Your task to perform on an android device: open app "Roku - Official Remote Control" (install if not already installed) Image 0: 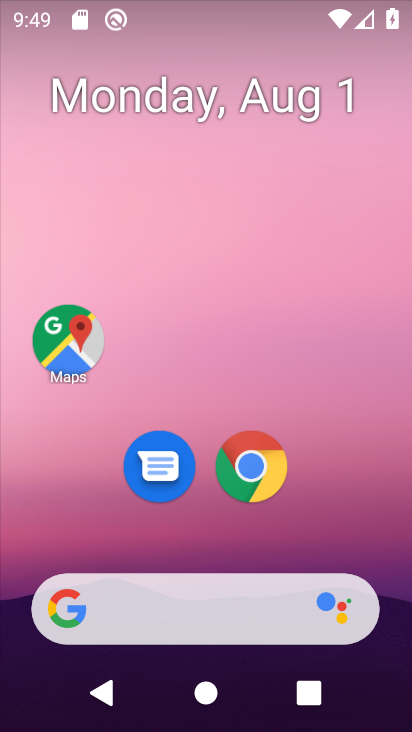
Step 0: drag from (239, 731) to (223, 130)
Your task to perform on an android device: open app "Roku - Official Remote Control" (install if not already installed) Image 1: 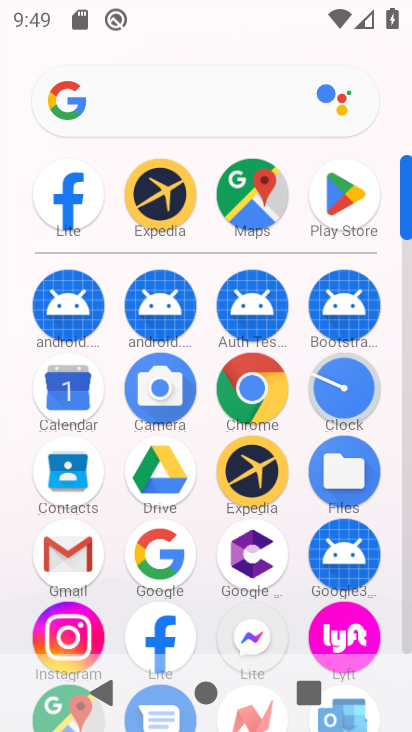
Step 1: drag from (205, 607) to (207, 272)
Your task to perform on an android device: open app "Roku - Official Remote Control" (install if not already installed) Image 2: 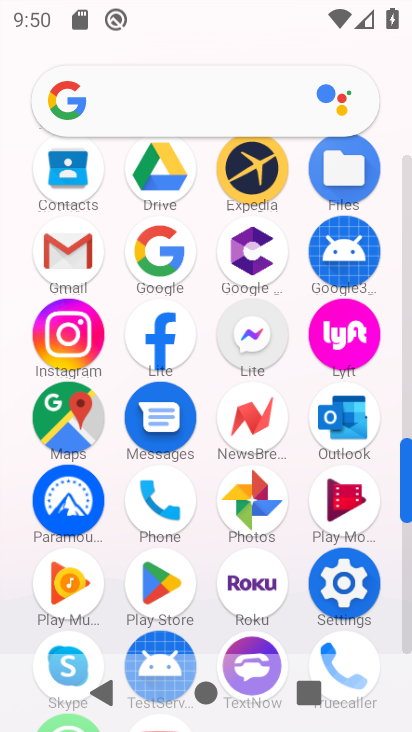
Step 2: click (160, 579)
Your task to perform on an android device: open app "Roku - Official Remote Control" (install if not already installed) Image 3: 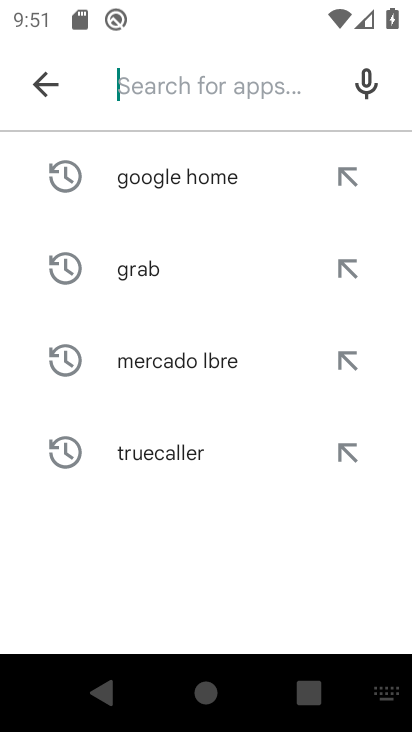
Step 3: type "Roku - Official Remote Control"
Your task to perform on an android device: open app "Roku - Official Remote Control" (install if not already installed) Image 4: 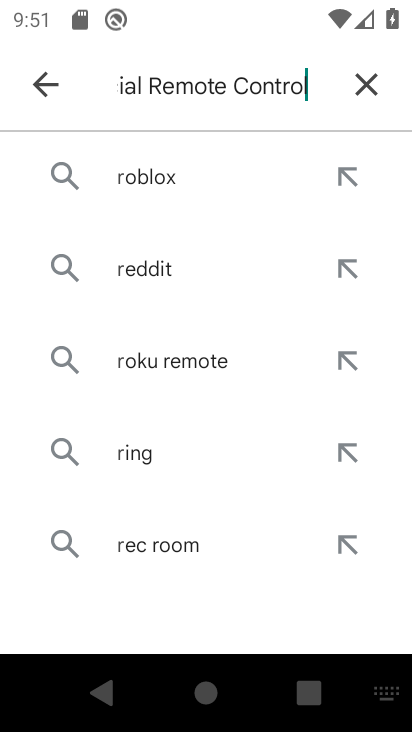
Step 4: type ""
Your task to perform on an android device: open app "Roku - Official Remote Control" (install if not already installed) Image 5: 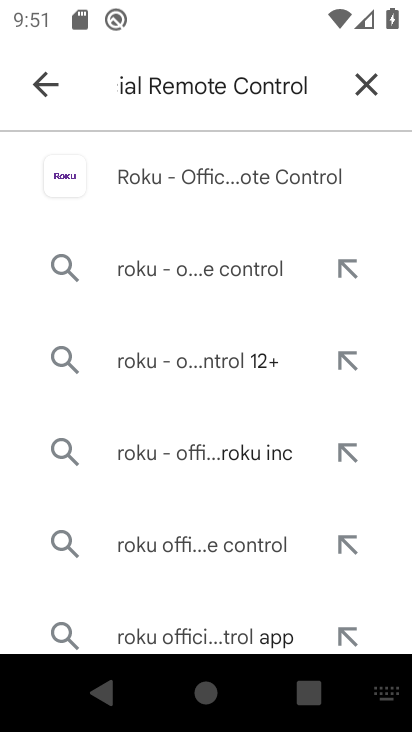
Step 5: click (285, 176)
Your task to perform on an android device: open app "Roku - Official Remote Control" (install if not already installed) Image 6: 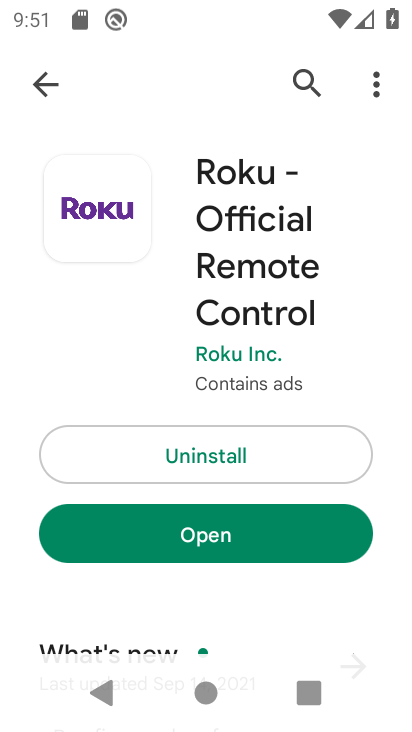
Step 6: click (217, 537)
Your task to perform on an android device: open app "Roku - Official Remote Control" (install if not already installed) Image 7: 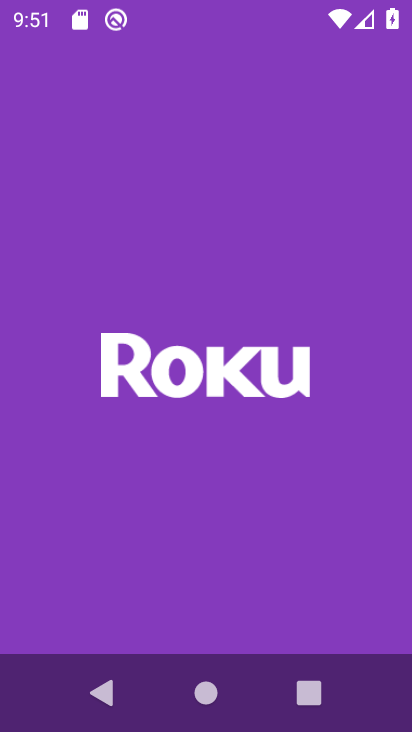
Step 7: task complete